Your task to perform on an android device: allow notifications from all sites in the chrome app Image 0: 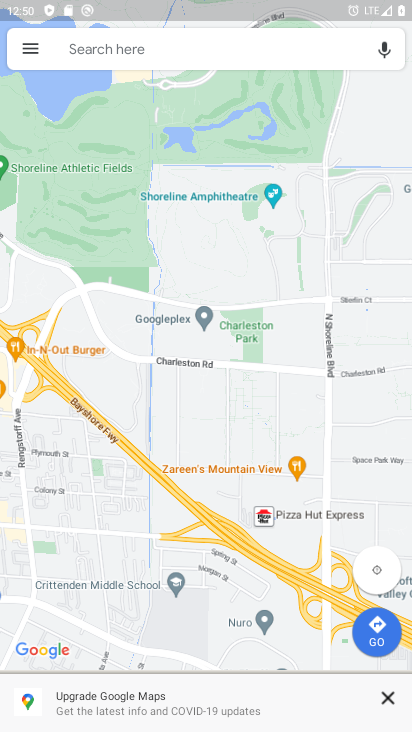
Step 0: press home button
Your task to perform on an android device: allow notifications from all sites in the chrome app Image 1: 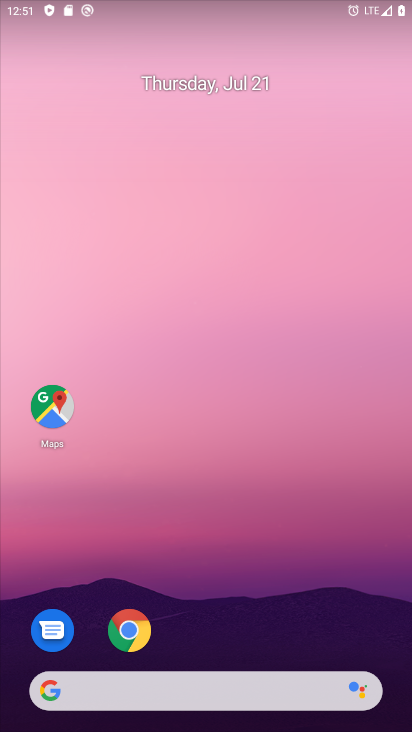
Step 1: click (142, 627)
Your task to perform on an android device: allow notifications from all sites in the chrome app Image 2: 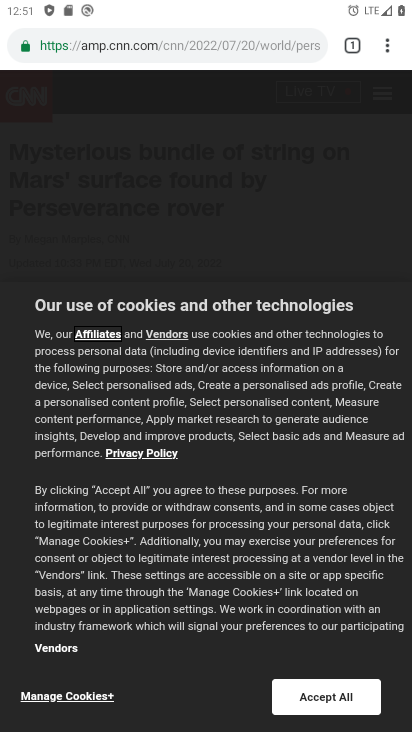
Step 2: click (391, 66)
Your task to perform on an android device: allow notifications from all sites in the chrome app Image 3: 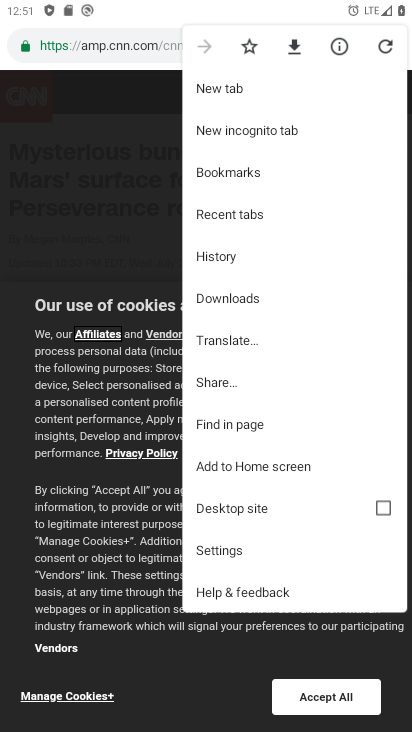
Step 3: click (225, 541)
Your task to perform on an android device: allow notifications from all sites in the chrome app Image 4: 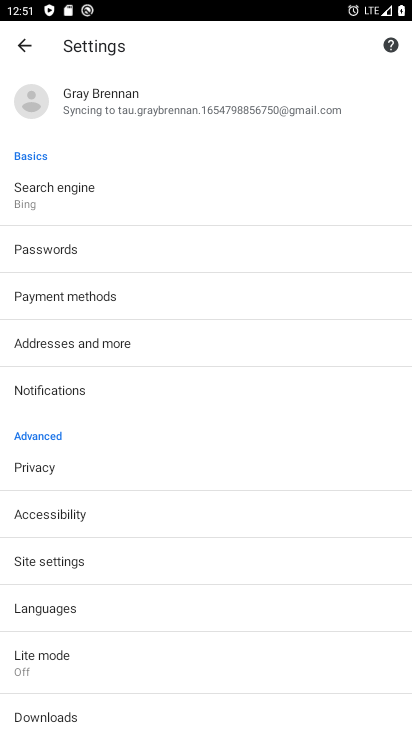
Step 4: click (105, 381)
Your task to perform on an android device: allow notifications from all sites in the chrome app Image 5: 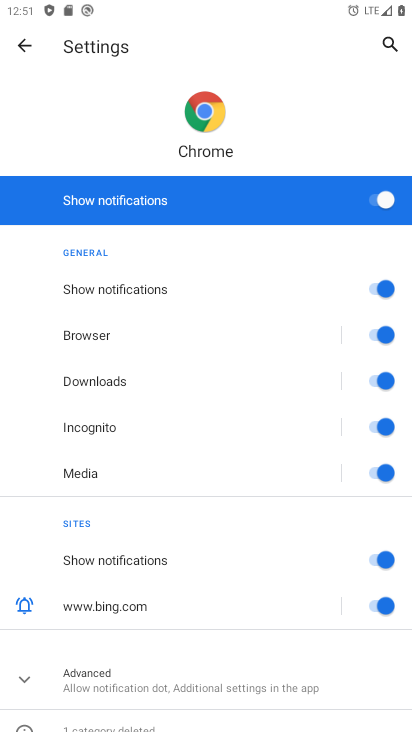
Step 5: task complete